Your task to perform on an android device: Show me recent news Image 0: 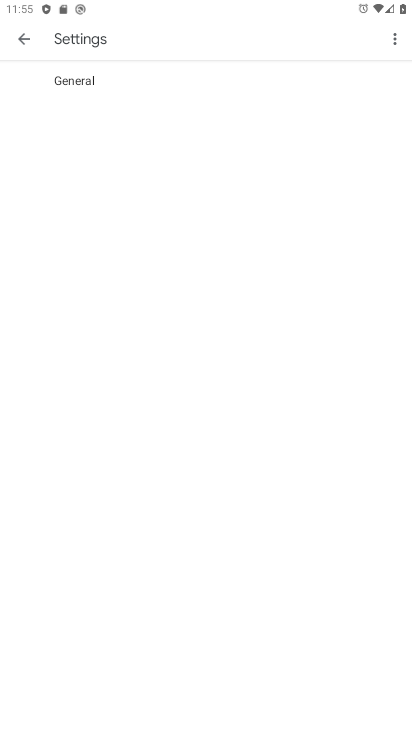
Step 0: press home button
Your task to perform on an android device: Show me recent news Image 1: 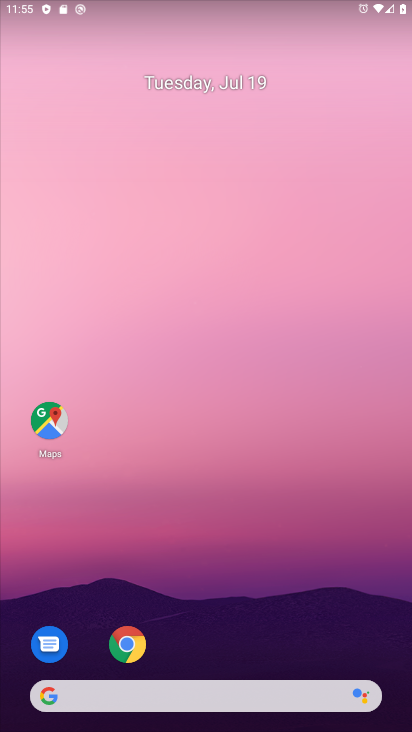
Step 1: click (220, 690)
Your task to perform on an android device: Show me recent news Image 2: 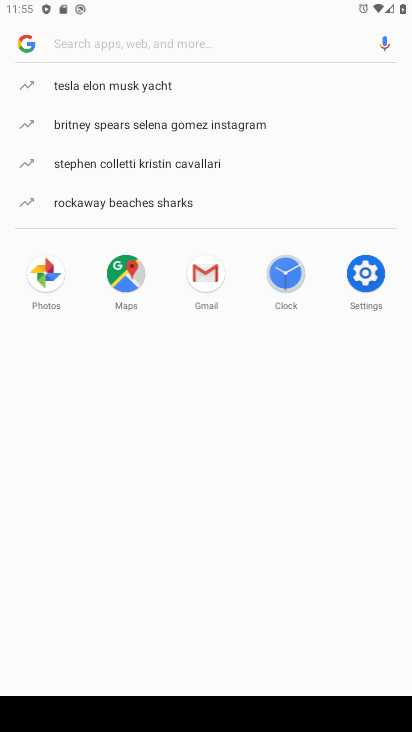
Step 2: type "news"
Your task to perform on an android device: Show me recent news Image 3: 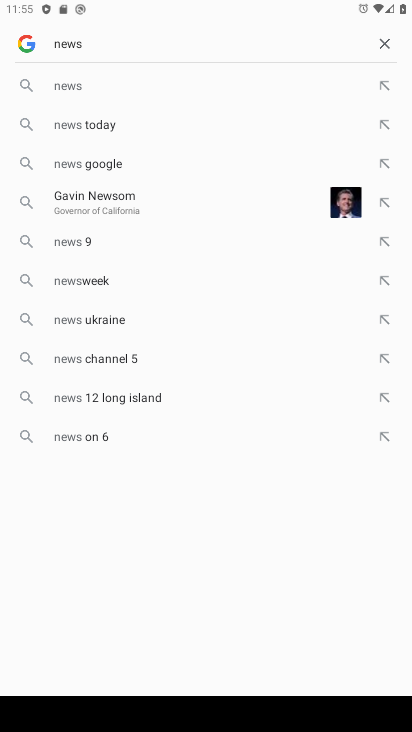
Step 3: click (132, 93)
Your task to perform on an android device: Show me recent news Image 4: 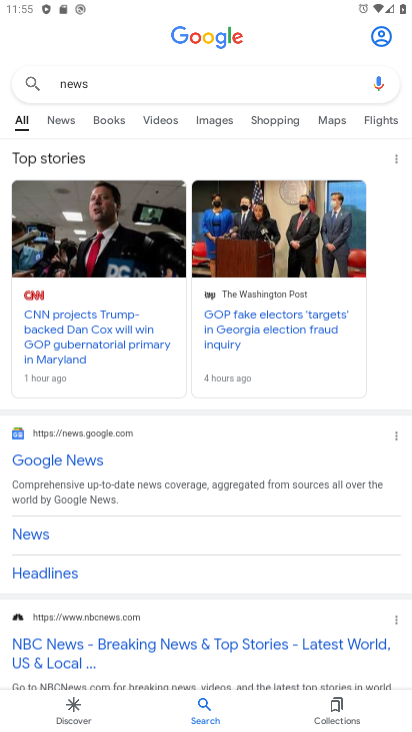
Step 4: task complete